Your task to perform on an android device: Show me popular games on the Play Store Image 0: 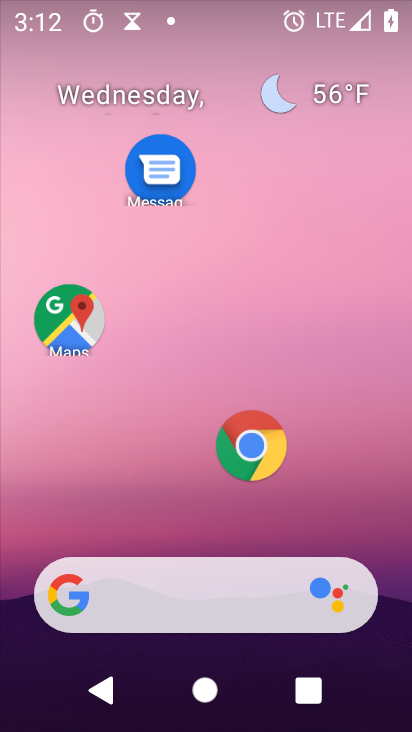
Step 0: press home button
Your task to perform on an android device: Show me popular games on the Play Store Image 1: 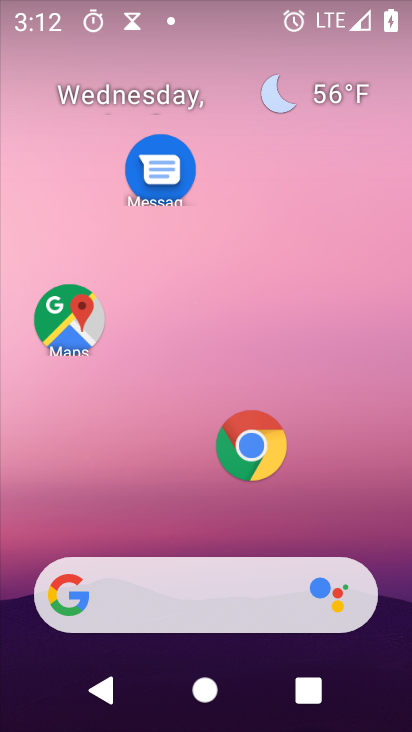
Step 1: drag from (49, 559) to (284, 154)
Your task to perform on an android device: Show me popular games on the Play Store Image 2: 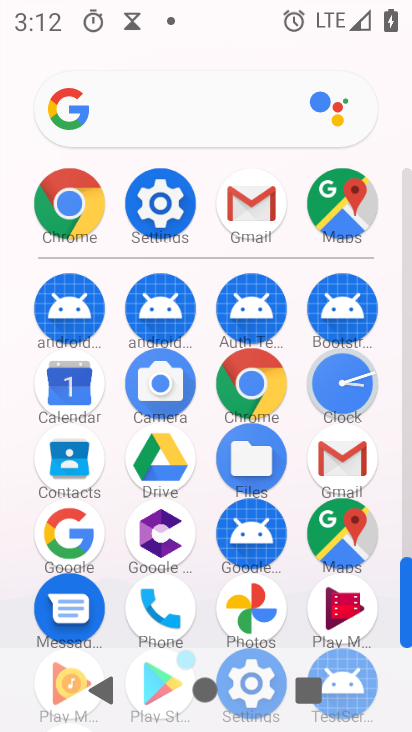
Step 2: drag from (8, 398) to (124, 137)
Your task to perform on an android device: Show me popular games on the Play Store Image 3: 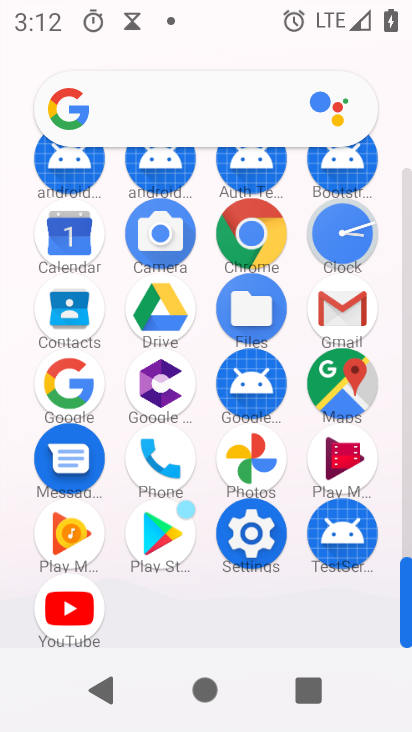
Step 3: click (148, 526)
Your task to perform on an android device: Show me popular games on the Play Store Image 4: 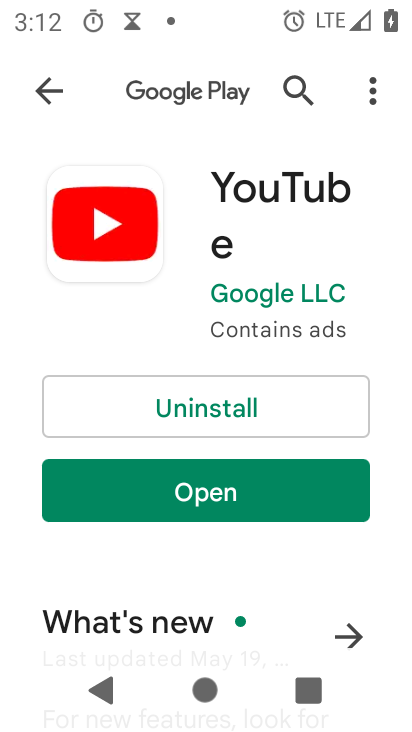
Step 4: click (39, 88)
Your task to perform on an android device: Show me popular games on the Play Store Image 5: 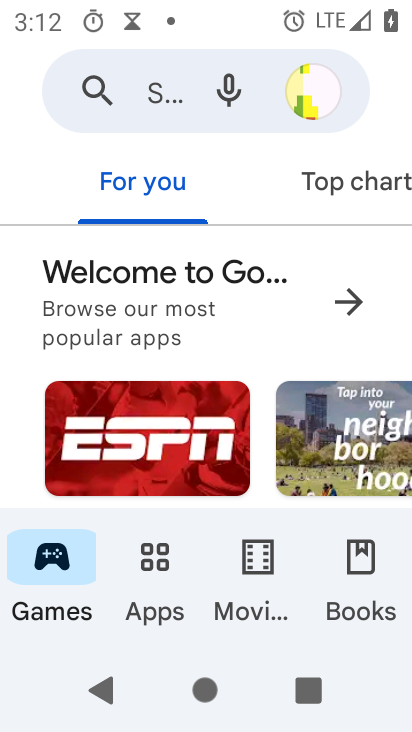
Step 5: task complete